Your task to perform on an android device: Open the phone app and click the voicemail tab. Image 0: 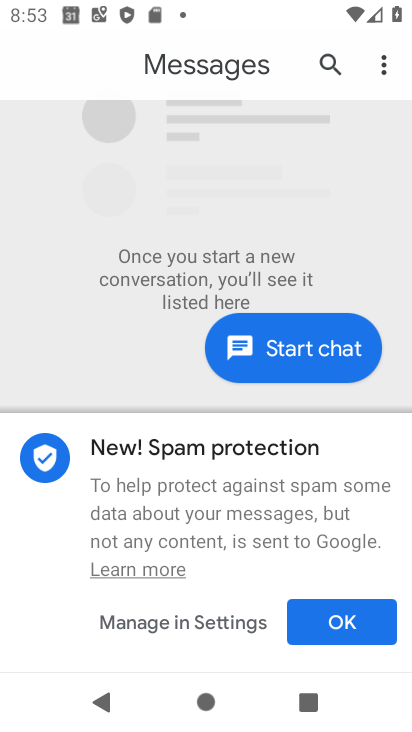
Step 0: press home button
Your task to perform on an android device: Open the phone app and click the voicemail tab. Image 1: 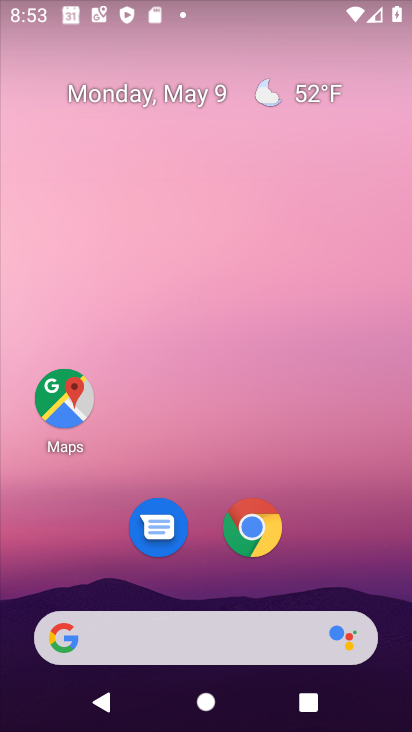
Step 1: drag from (226, 559) to (242, 87)
Your task to perform on an android device: Open the phone app and click the voicemail tab. Image 2: 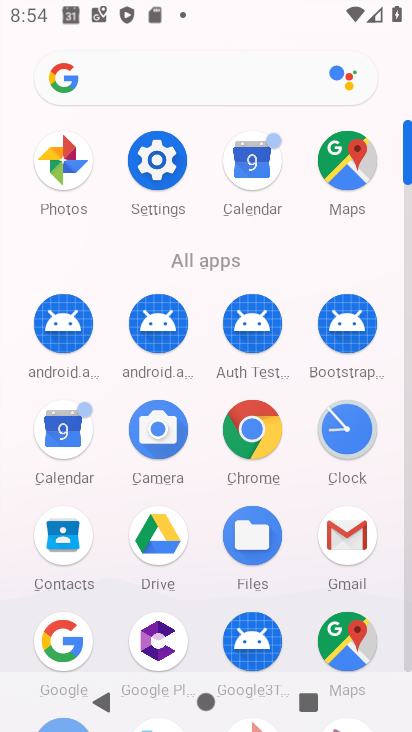
Step 2: drag from (194, 474) to (215, 191)
Your task to perform on an android device: Open the phone app and click the voicemail tab. Image 3: 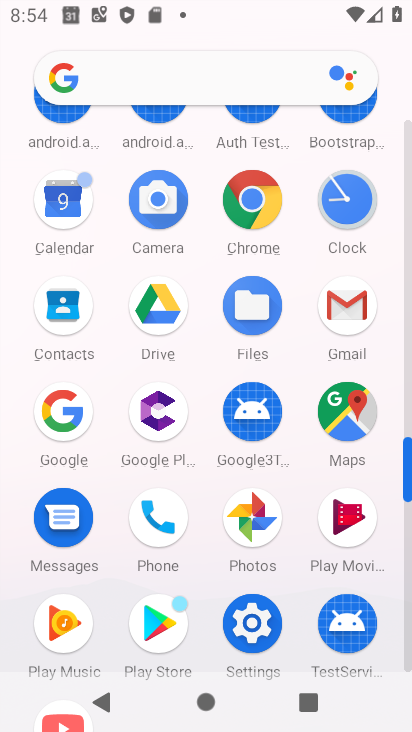
Step 3: click (150, 521)
Your task to perform on an android device: Open the phone app and click the voicemail tab. Image 4: 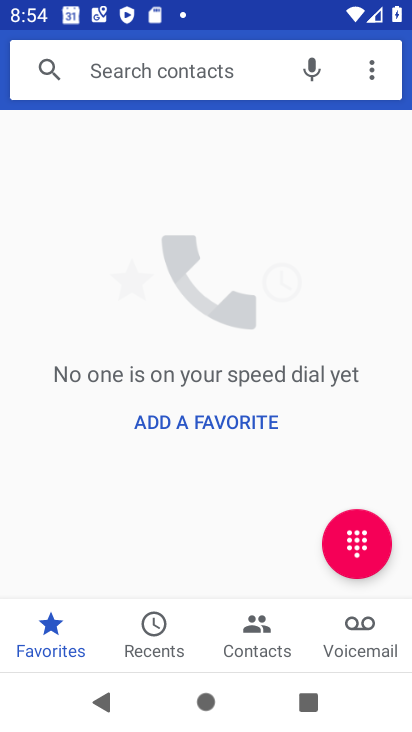
Step 4: click (351, 646)
Your task to perform on an android device: Open the phone app and click the voicemail tab. Image 5: 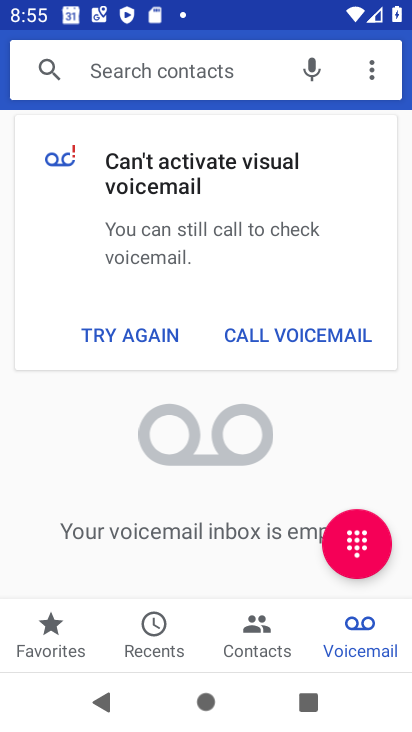
Step 5: task complete